Your task to perform on an android device: Search for vegetarian restaurants on Maps Image 0: 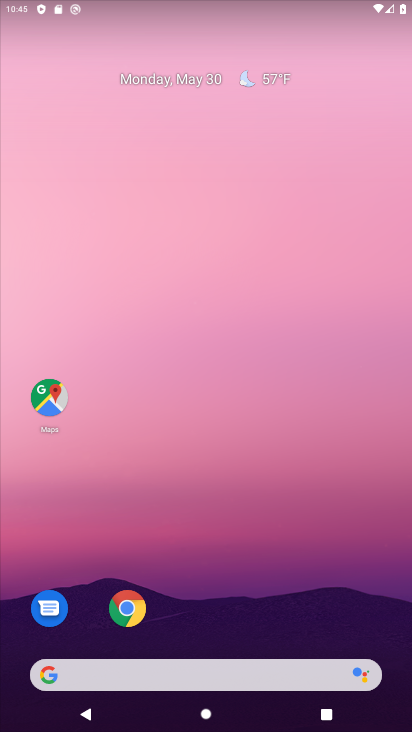
Step 0: drag from (290, 429) to (265, 6)
Your task to perform on an android device: Search for vegetarian restaurants on Maps Image 1: 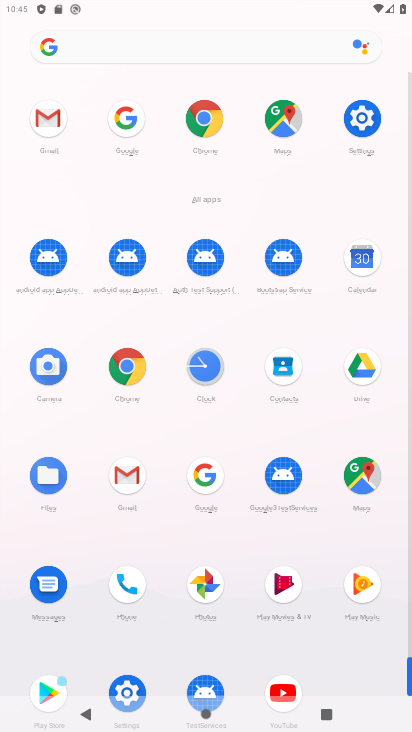
Step 1: click (359, 467)
Your task to perform on an android device: Search for vegetarian restaurants on Maps Image 2: 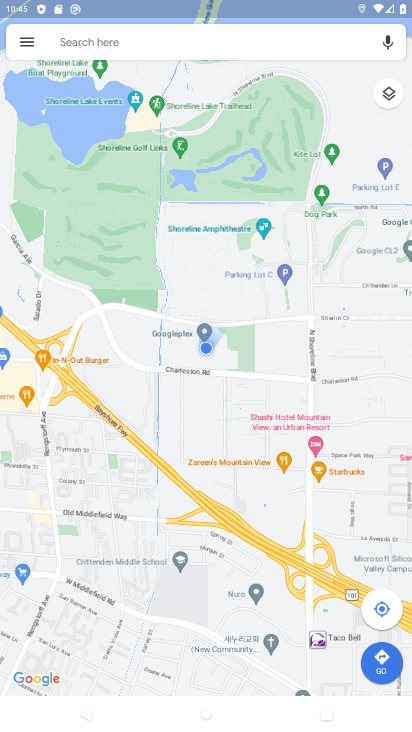
Step 2: click (174, 41)
Your task to perform on an android device: Search for vegetarian restaurants on Maps Image 3: 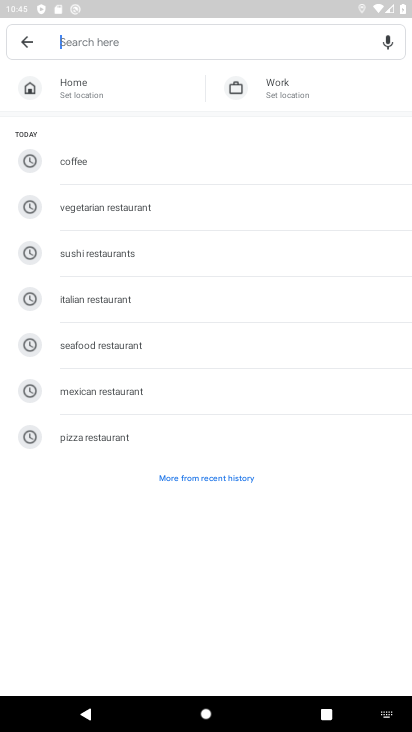
Step 3: click (119, 199)
Your task to perform on an android device: Search for vegetarian restaurants on Maps Image 4: 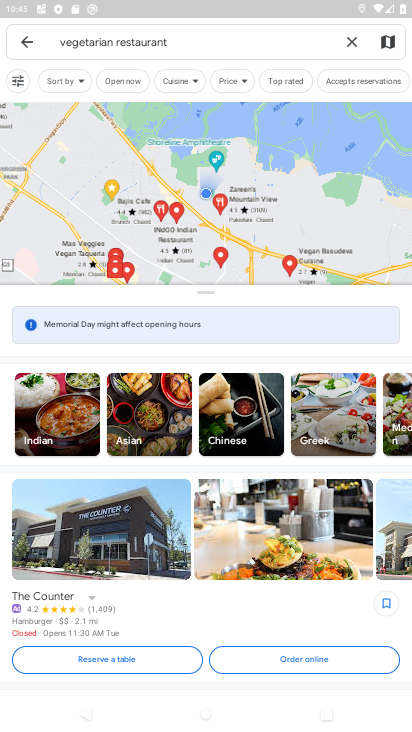
Step 4: task complete